Your task to perform on an android device: clear all cookies in the chrome app Image 0: 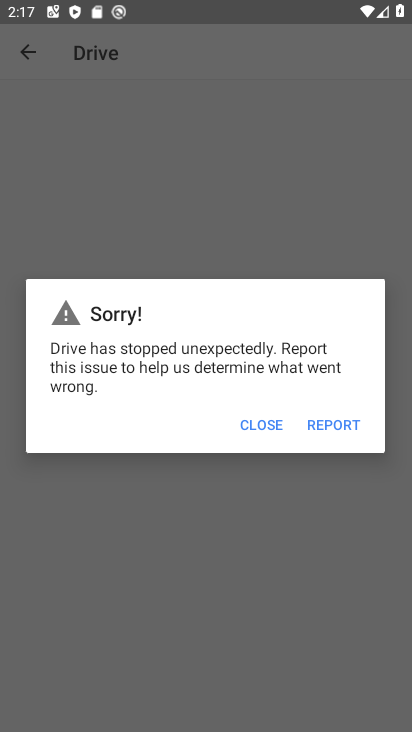
Step 0: press home button
Your task to perform on an android device: clear all cookies in the chrome app Image 1: 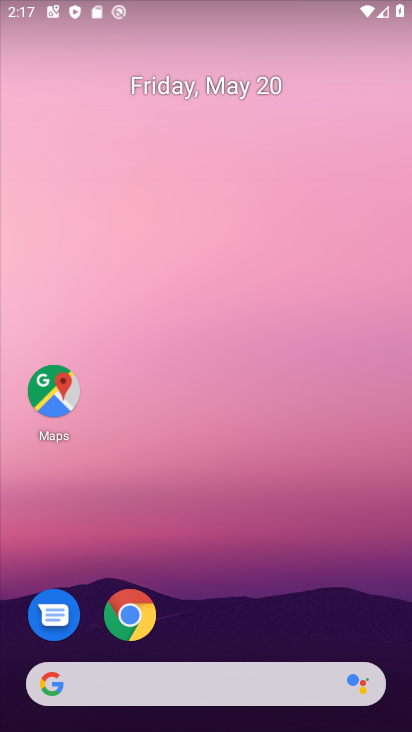
Step 1: drag from (260, 563) to (206, 226)
Your task to perform on an android device: clear all cookies in the chrome app Image 2: 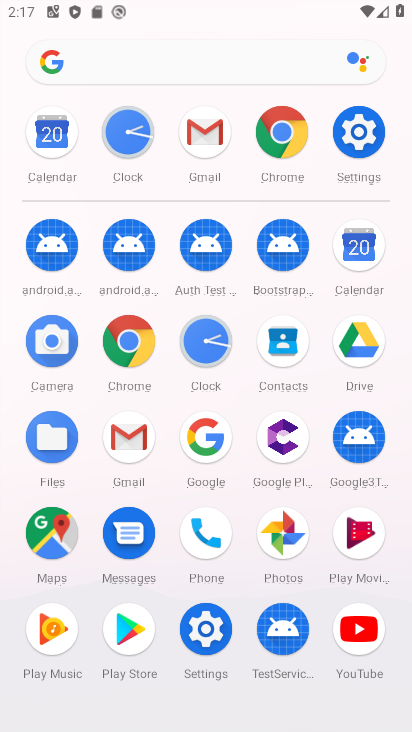
Step 2: click (356, 128)
Your task to perform on an android device: clear all cookies in the chrome app Image 3: 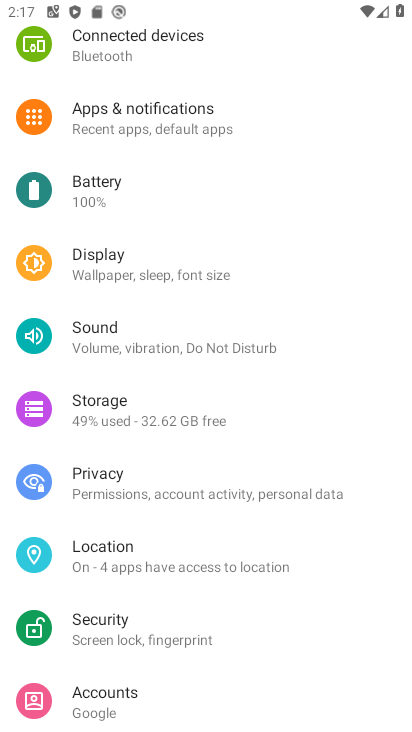
Step 3: press back button
Your task to perform on an android device: clear all cookies in the chrome app Image 4: 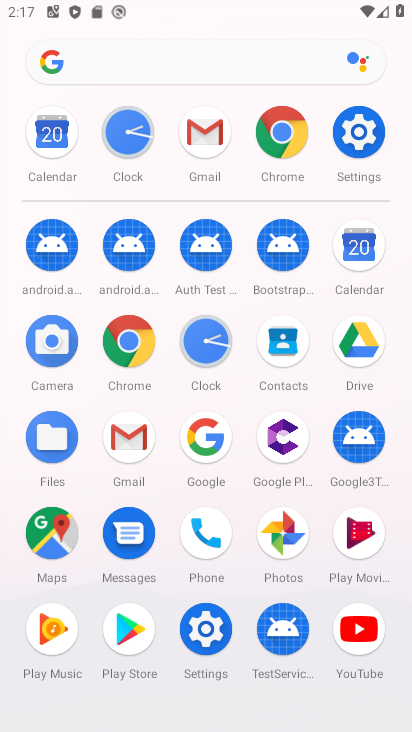
Step 4: click (295, 129)
Your task to perform on an android device: clear all cookies in the chrome app Image 5: 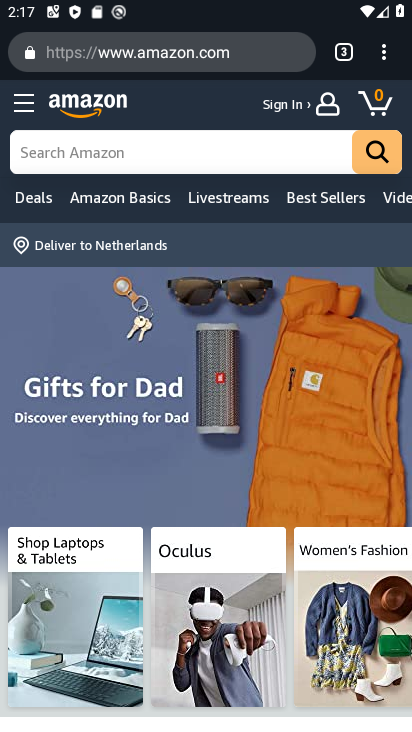
Step 5: click (390, 50)
Your task to perform on an android device: clear all cookies in the chrome app Image 6: 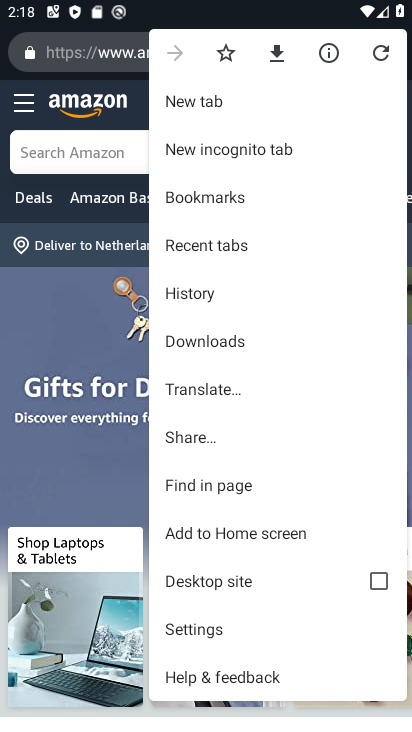
Step 6: click (240, 620)
Your task to perform on an android device: clear all cookies in the chrome app Image 7: 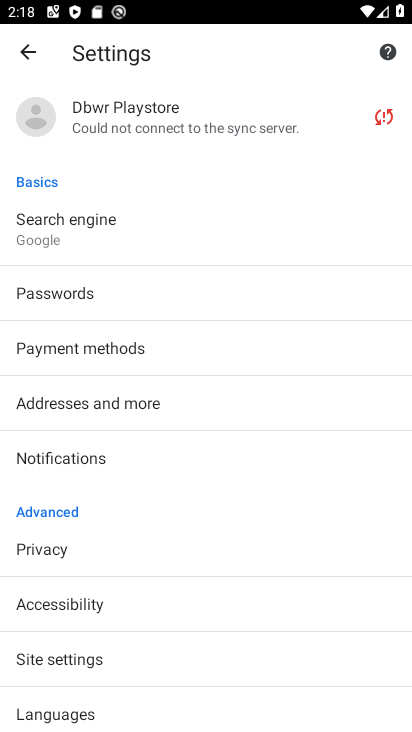
Step 7: click (89, 544)
Your task to perform on an android device: clear all cookies in the chrome app Image 8: 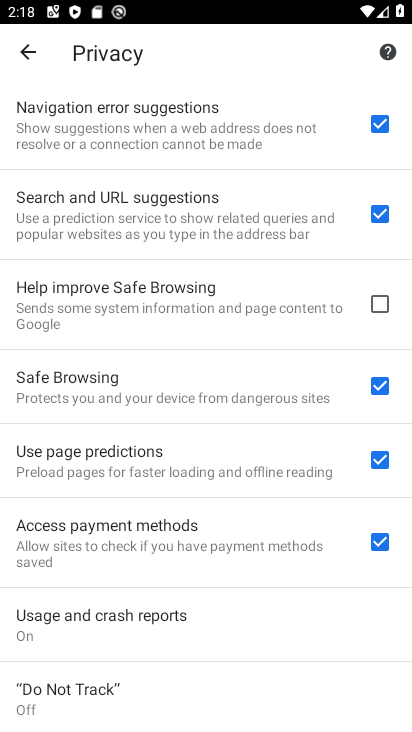
Step 8: drag from (138, 670) to (242, 73)
Your task to perform on an android device: clear all cookies in the chrome app Image 9: 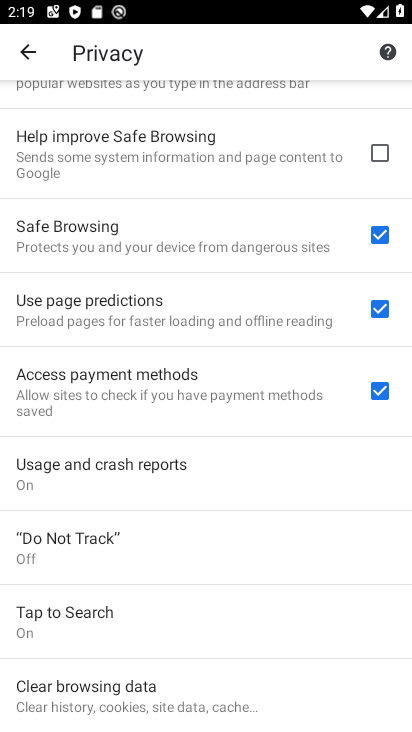
Step 9: click (218, 697)
Your task to perform on an android device: clear all cookies in the chrome app Image 10: 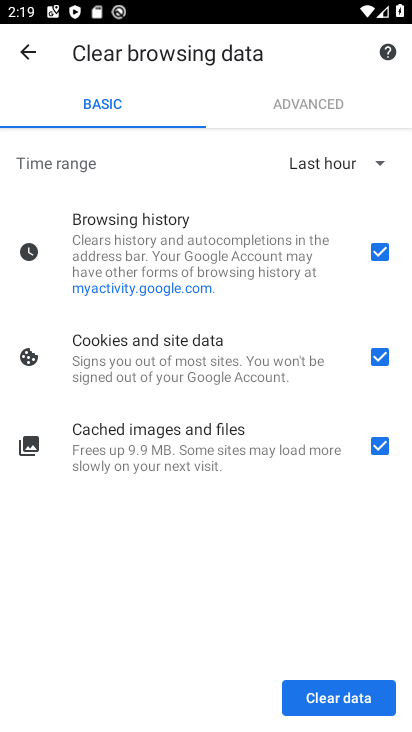
Step 10: click (342, 714)
Your task to perform on an android device: clear all cookies in the chrome app Image 11: 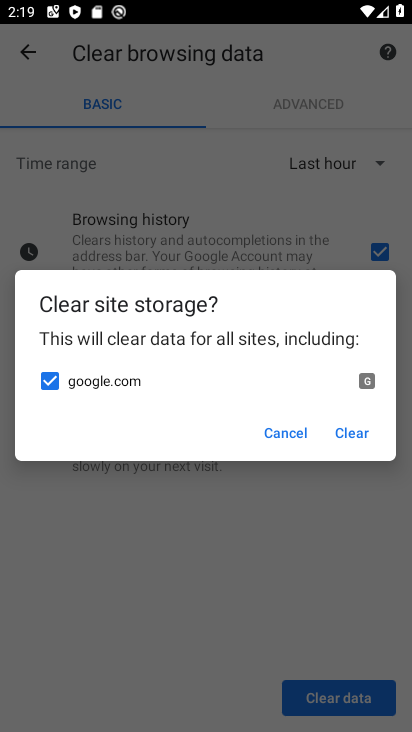
Step 11: click (353, 418)
Your task to perform on an android device: clear all cookies in the chrome app Image 12: 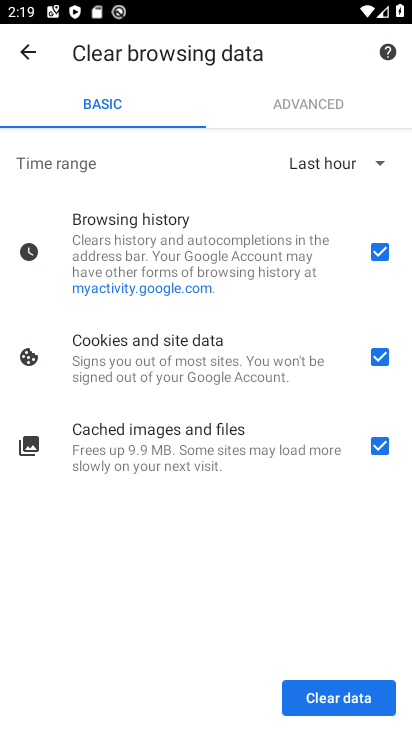
Step 12: task complete